Your task to perform on an android device: Open calendar and show me the fourth week of next month Image 0: 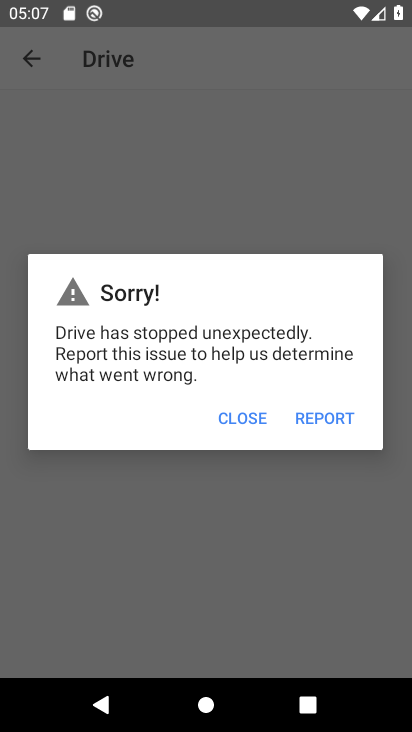
Step 0: press back button
Your task to perform on an android device: Open calendar and show me the fourth week of next month Image 1: 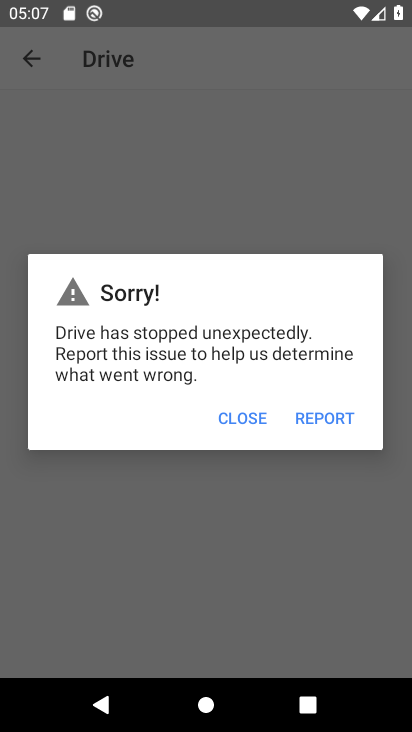
Step 1: press home button
Your task to perform on an android device: Open calendar and show me the fourth week of next month Image 2: 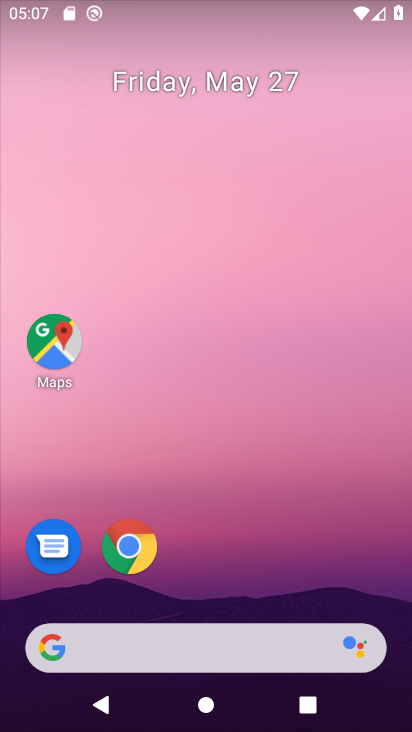
Step 2: drag from (271, 554) to (239, 95)
Your task to perform on an android device: Open calendar and show me the fourth week of next month Image 3: 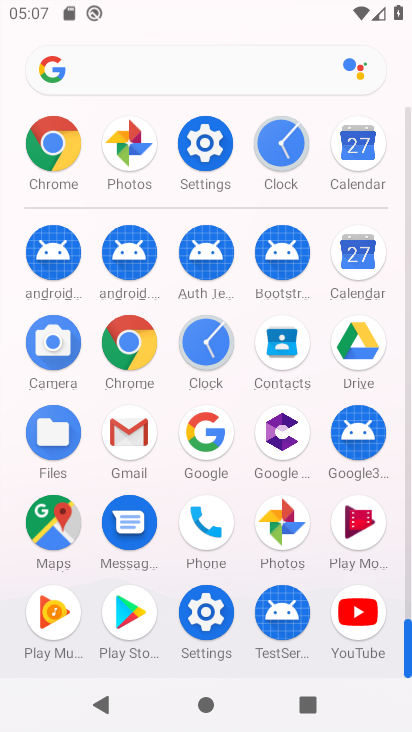
Step 3: drag from (9, 307) to (10, 264)
Your task to perform on an android device: Open calendar and show me the fourth week of next month Image 4: 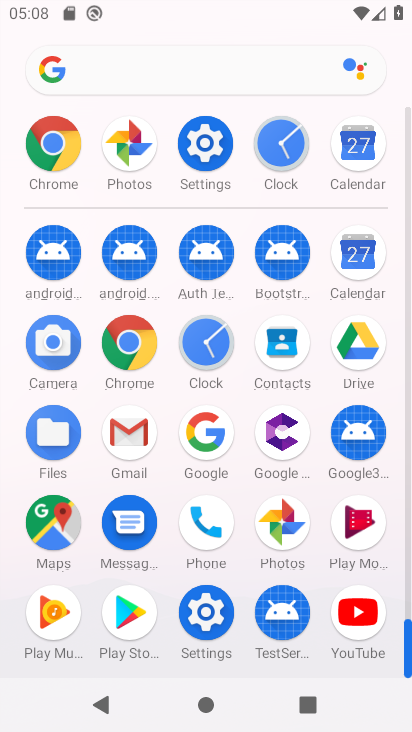
Step 4: click (355, 248)
Your task to perform on an android device: Open calendar and show me the fourth week of next month Image 5: 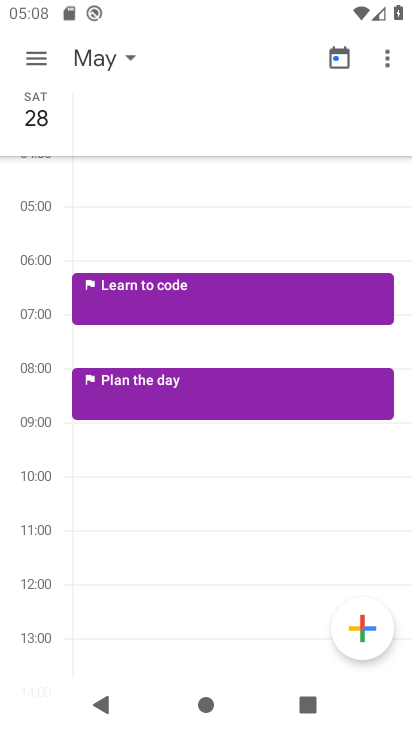
Step 5: click (95, 59)
Your task to perform on an android device: Open calendar and show me the fourth week of next month Image 6: 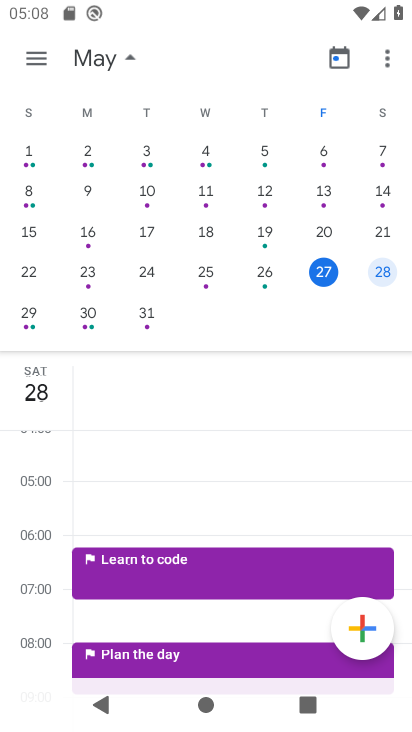
Step 6: drag from (385, 200) to (1, 264)
Your task to perform on an android device: Open calendar and show me the fourth week of next month Image 7: 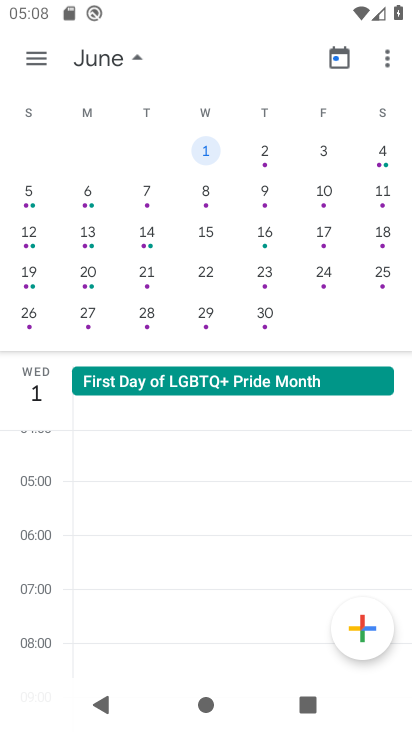
Step 7: click (26, 276)
Your task to perform on an android device: Open calendar and show me the fourth week of next month Image 8: 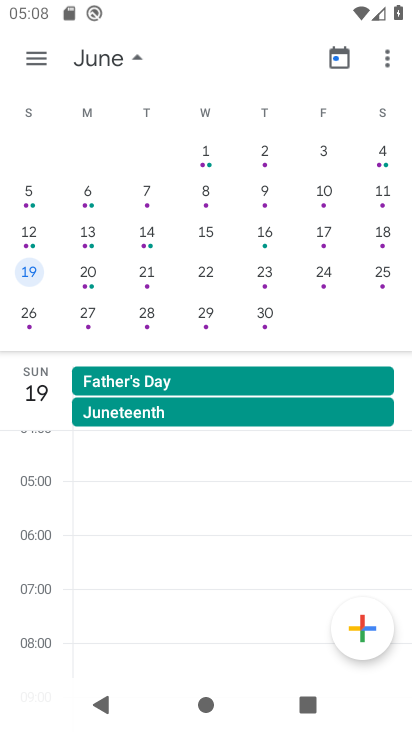
Step 8: click (38, 46)
Your task to perform on an android device: Open calendar and show me the fourth week of next month Image 9: 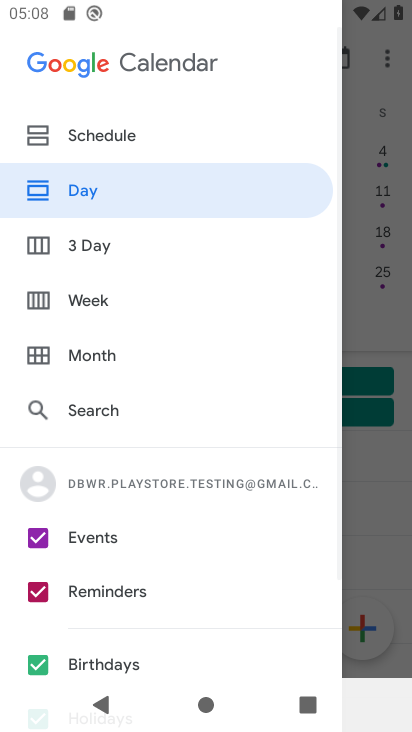
Step 9: click (98, 312)
Your task to perform on an android device: Open calendar and show me the fourth week of next month Image 10: 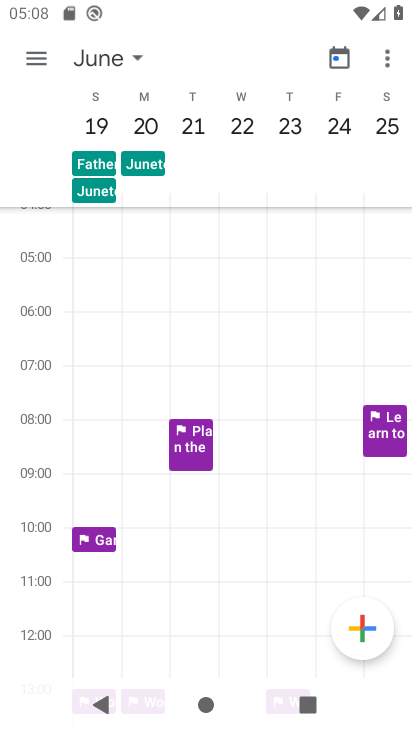
Step 10: task complete